Your task to perform on an android device: Open Wikipedia Image 0: 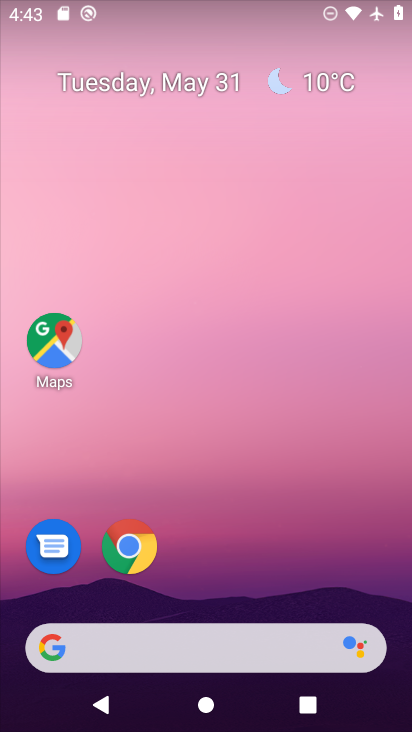
Step 0: click (141, 557)
Your task to perform on an android device: Open Wikipedia Image 1: 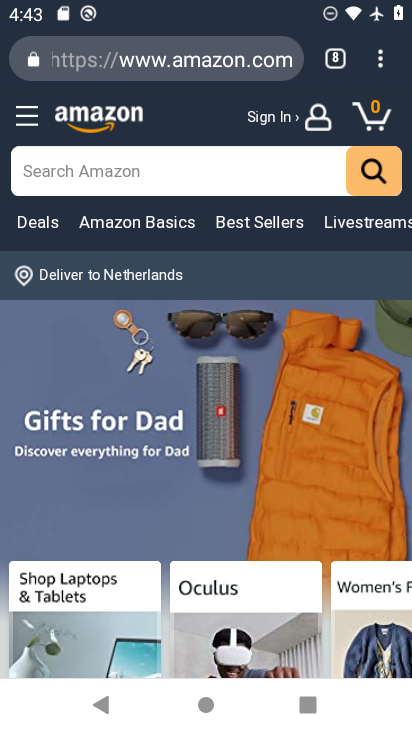
Step 1: click (341, 60)
Your task to perform on an android device: Open Wikipedia Image 2: 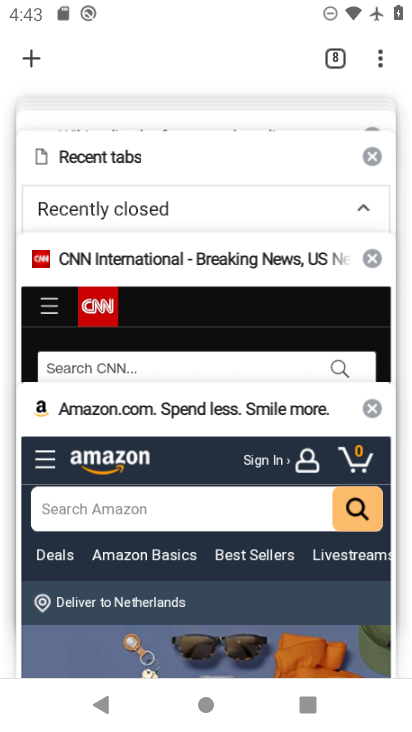
Step 2: drag from (226, 210) to (178, 617)
Your task to perform on an android device: Open Wikipedia Image 3: 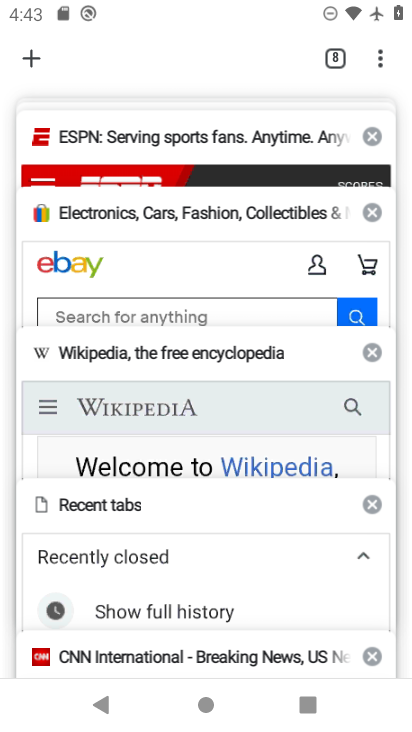
Step 3: click (166, 396)
Your task to perform on an android device: Open Wikipedia Image 4: 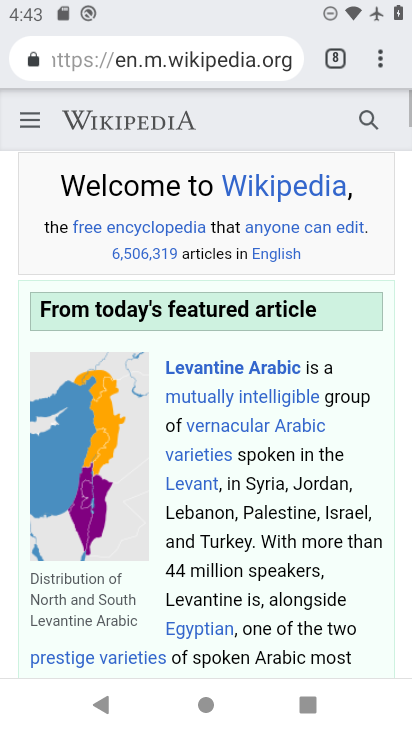
Step 4: task complete